Your task to perform on an android device: turn off notifications settings in the gmail app Image 0: 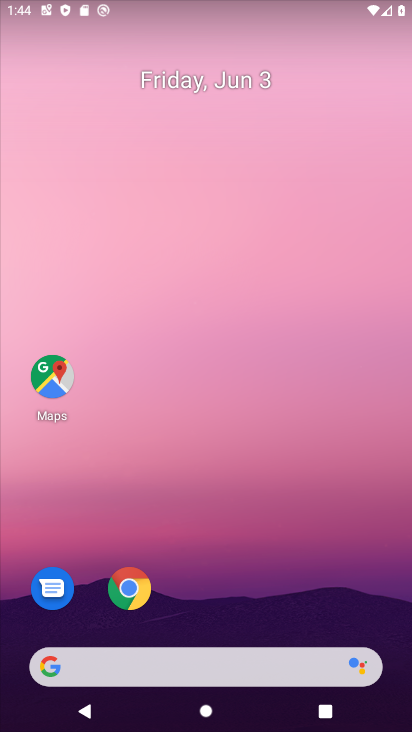
Step 0: drag from (50, 480) to (213, 92)
Your task to perform on an android device: turn off notifications settings in the gmail app Image 1: 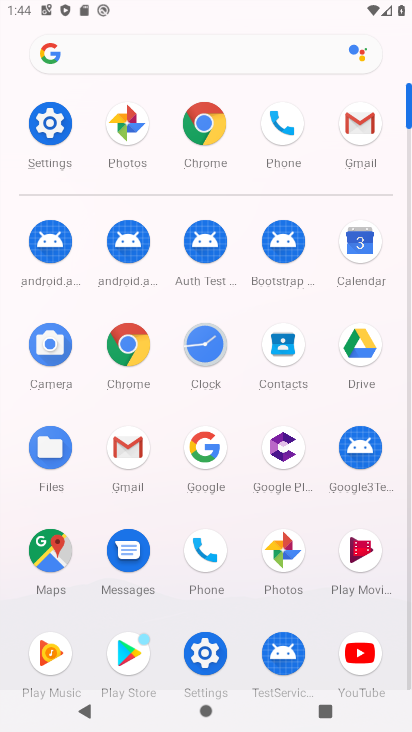
Step 1: click (45, 137)
Your task to perform on an android device: turn off notifications settings in the gmail app Image 2: 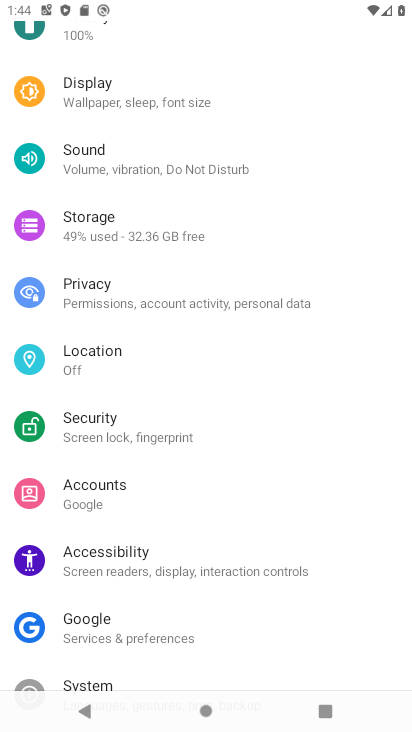
Step 2: drag from (151, 150) to (12, 587)
Your task to perform on an android device: turn off notifications settings in the gmail app Image 3: 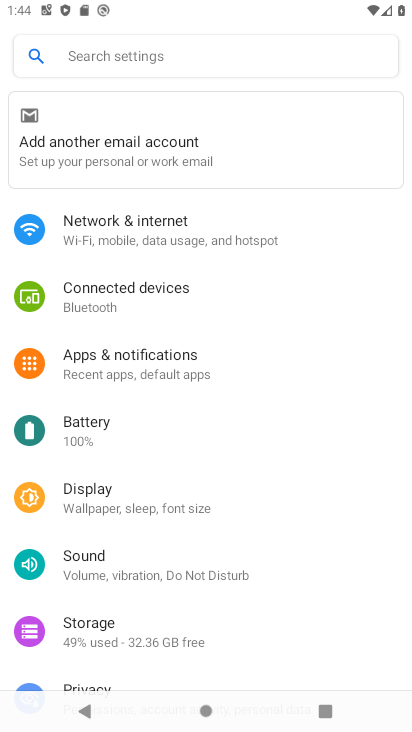
Step 3: click (79, 361)
Your task to perform on an android device: turn off notifications settings in the gmail app Image 4: 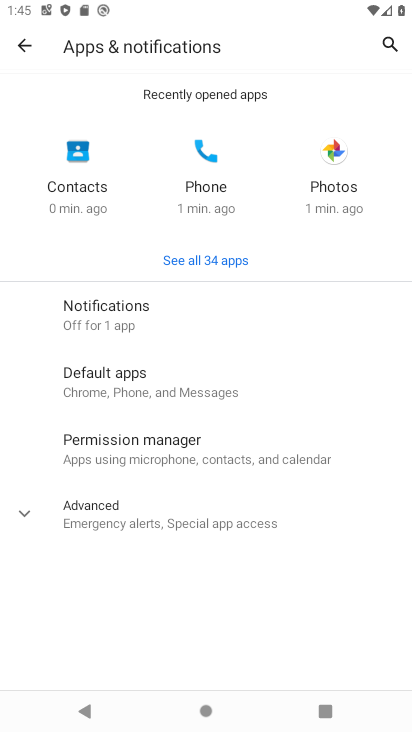
Step 4: click (60, 302)
Your task to perform on an android device: turn off notifications settings in the gmail app Image 5: 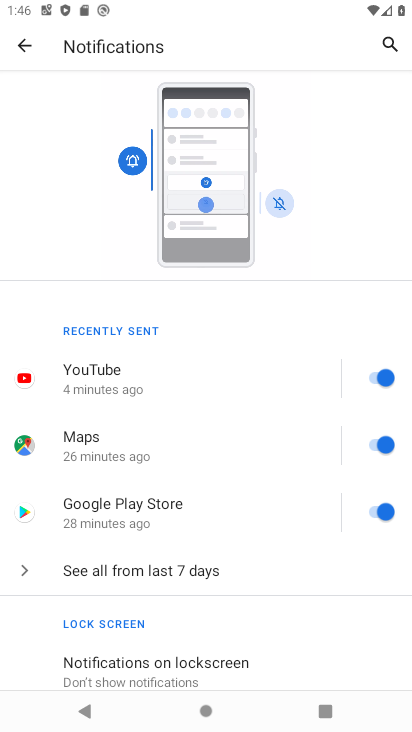
Step 5: press home button
Your task to perform on an android device: turn off notifications settings in the gmail app Image 6: 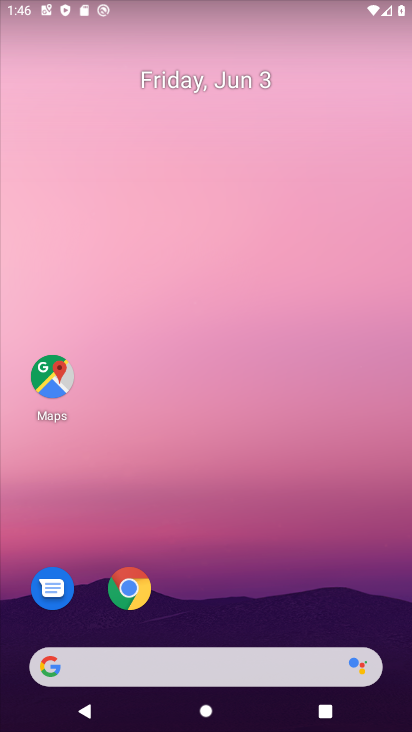
Step 6: drag from (30, 388) to (253, 144)
Your task to perform on an android device: turn off notifications settings in the gmail app Image 7: 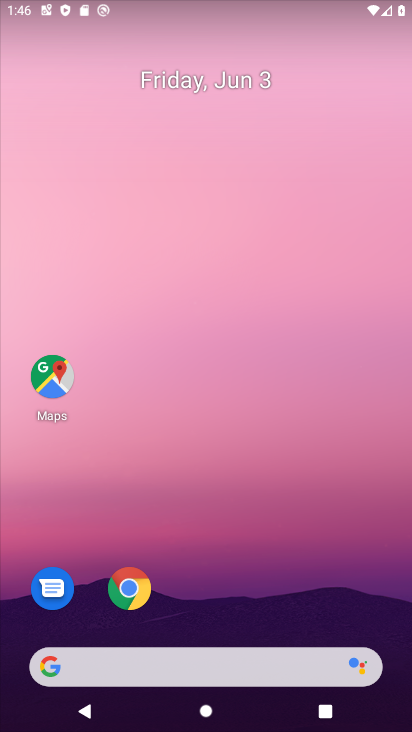
Step 7: drag from (39, 566) to (322, 114)
Your task to perform on an android device: turn off notifications settings in the gmail app Image 8: 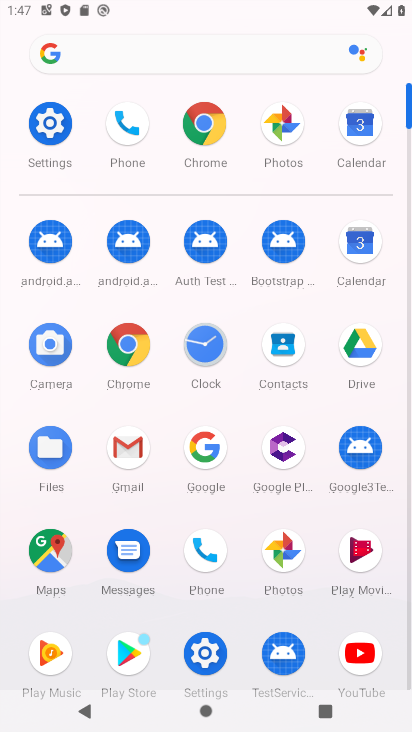
Step 8: click (116, 442)
Your task to perform on an android device: turn off notifications settings in the gmail app Image 9: 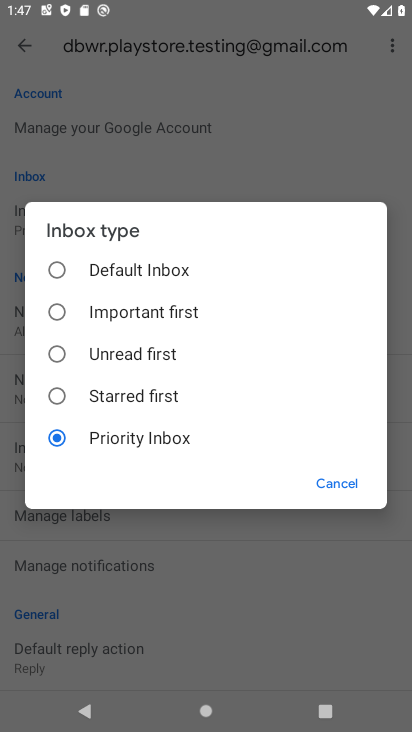
Step 9: click (310, 489)
Your task to perform on an android device: turn off notifications settings in the gmail app Image 10: 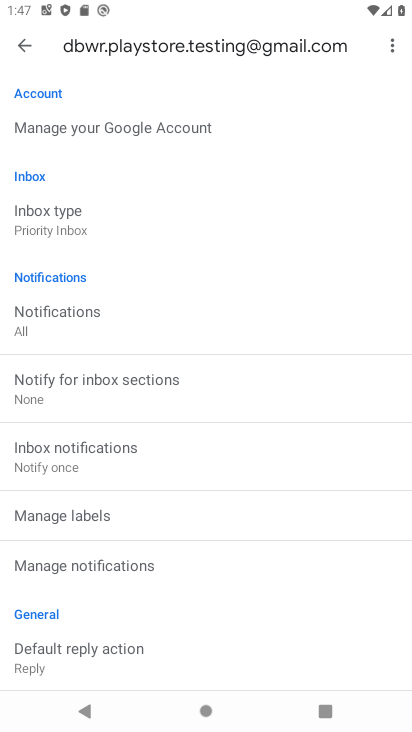
Step 10: click (106, 570)
Your task to perform on an android device: turn off notifications settings in the gmail app Image 11: 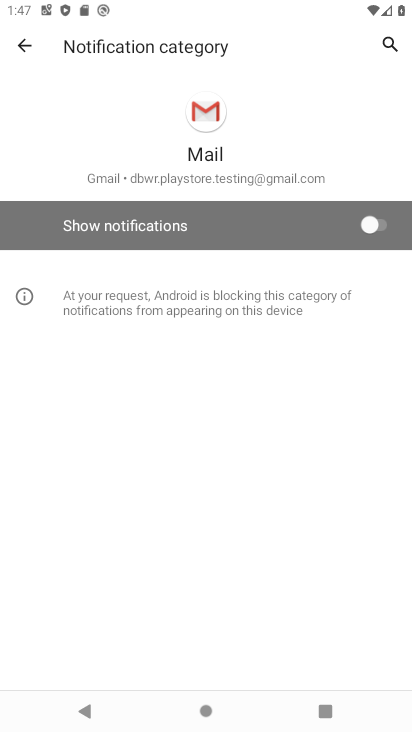
Step 11: task complete